Your task to perform on an android device: Search for 4k TVs on Best Buy. Image 0: 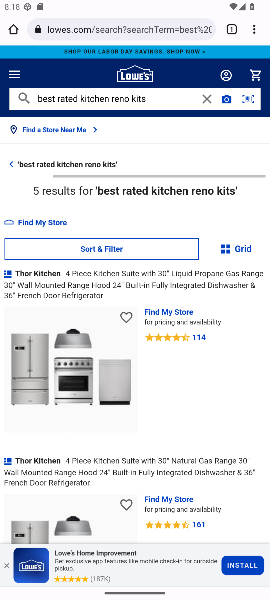
Step 0: click (101, 32)
Your task to perform on an android device: Search for 4k TVs on Best Buy. Image 1: 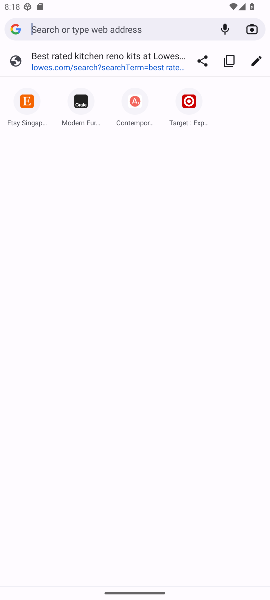
Step 1: type "Best Buy."
Your task to perform on an android device: Search for 4k TVs on Best Buy. Image 2: 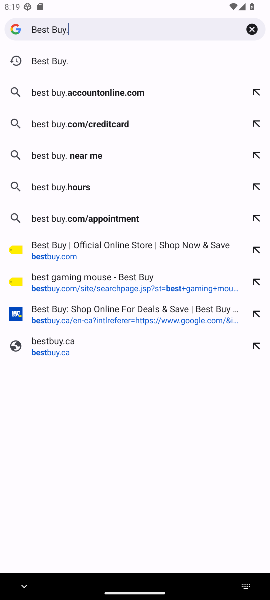
Step 2: click (45, 61)
Your task to perform on an android device: Search for 4k TVs on Best Buy. Image 3: 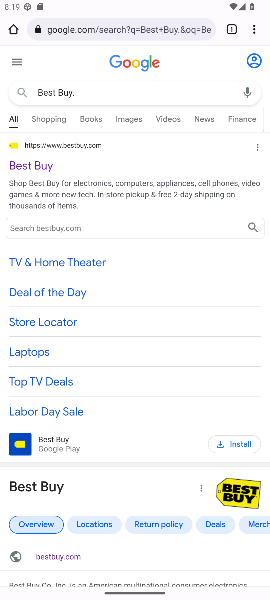
Step 3: click (21, 169)
Your task to perform on an android device: Search for 4k TVs on Best Buy. Image 4: 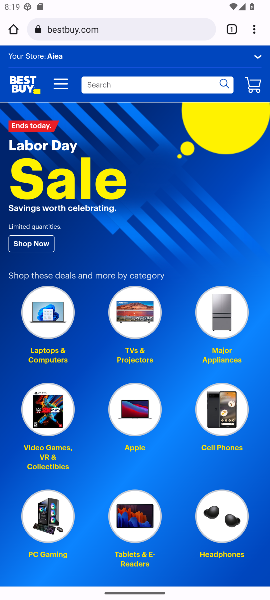
Step 4: click (144, 89)
Your task to perform on an android device: Search for 4k TVs on Best Buy. Image 5: 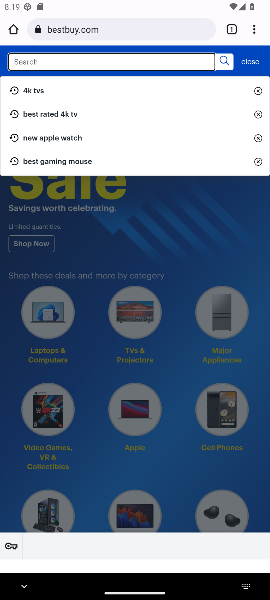
Step 5: type "4k TVs"
Your task to perform on an android device: Search for 4k TVs on Best Buy. Image 6: 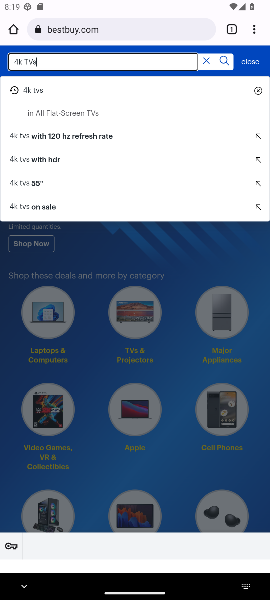
Step 6: click (223, 59)
Your task to perform on an android device: Search for 4k TVs on Best Buy. Image 7: 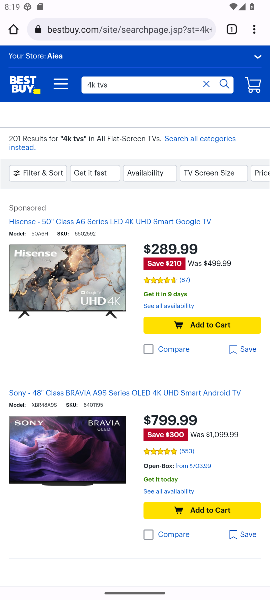
Step 7: task complete